Your task to perform on an android device: open app "Clock" (install if not already installed) Image 0: 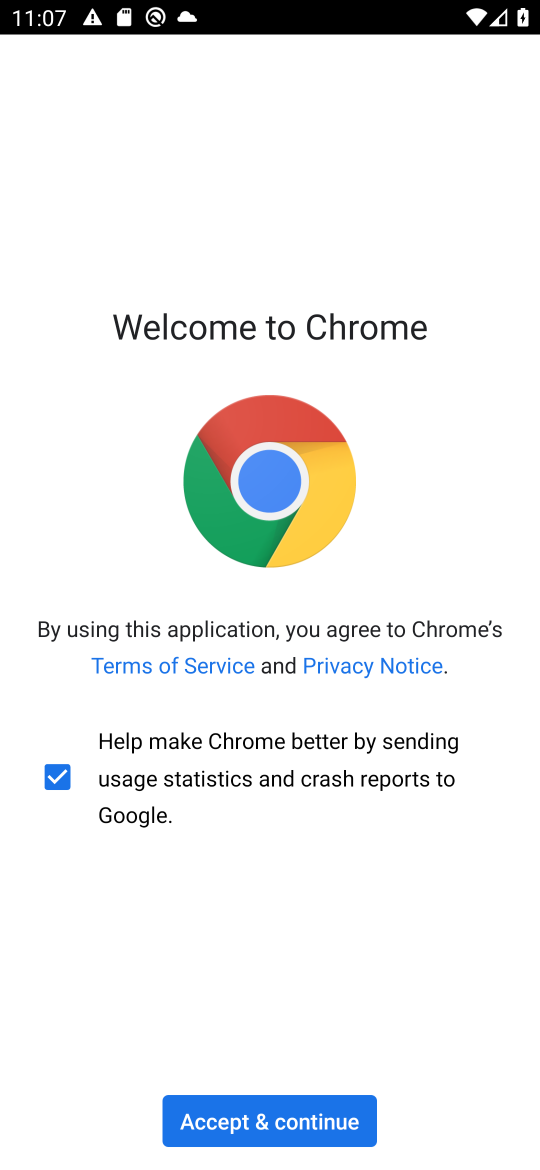
Step 0: press home button
Your task to perform on an android device: open app "Clock" (install if not already installed) Image 1: 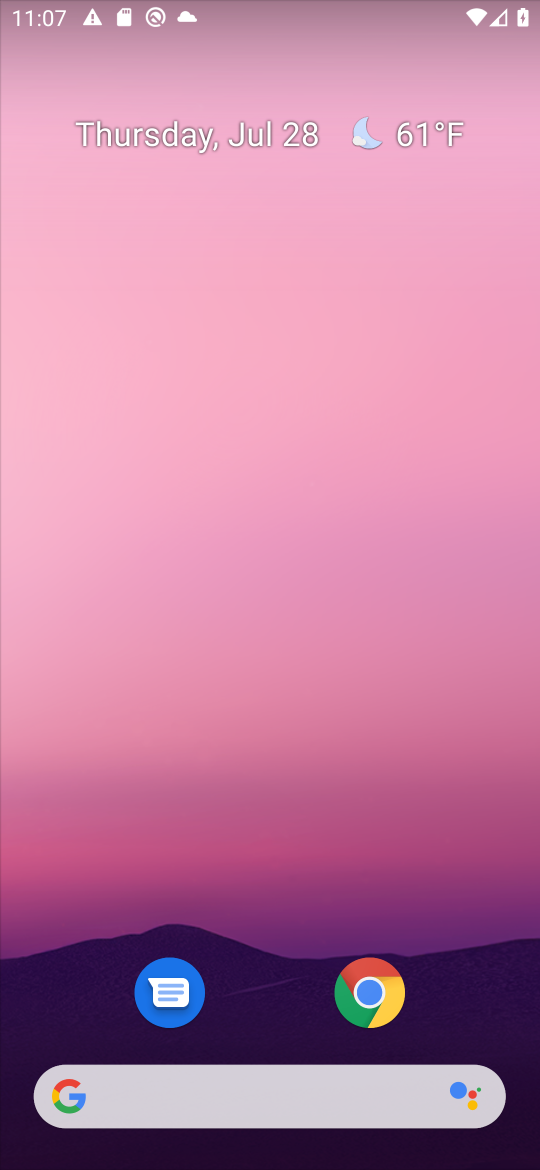
Step 1: drag from (245, 1108) to (362, 239)
Your task to perform on an android device: open app "Clock" (install if not already installed) Image 2: 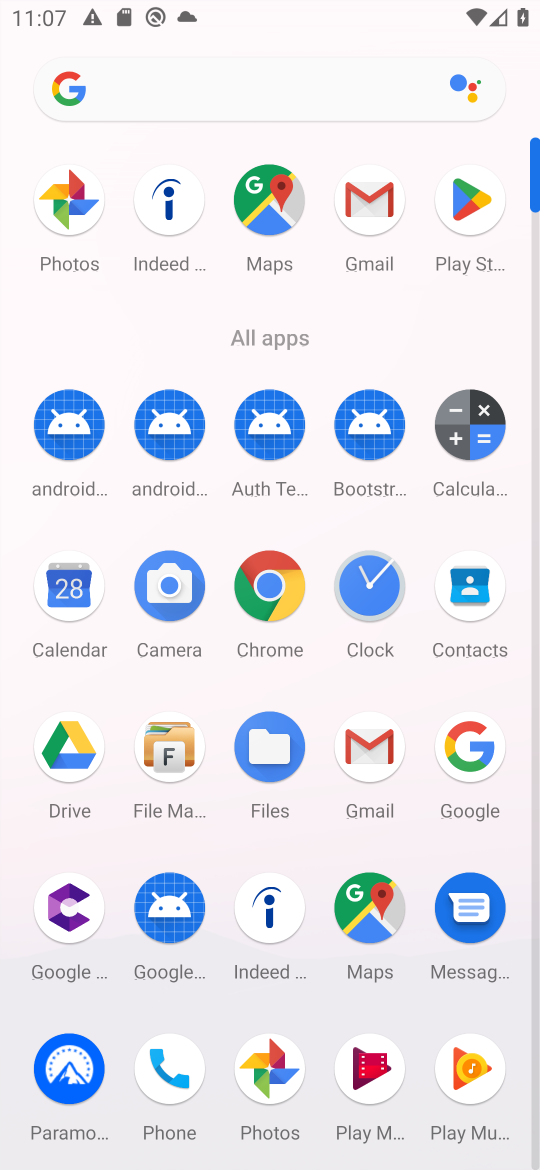
Step 2: click (474, 198)
Your task to perform on an android device: open app "Clock" (install if not already installed) Image 3: 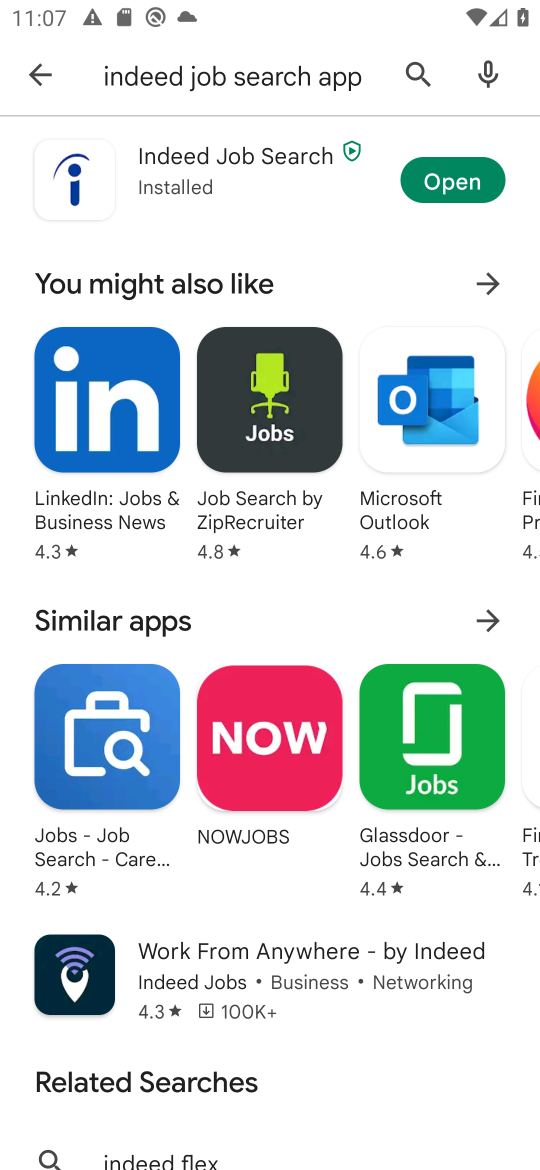
Step 3: click (411, 72)
Your task to perform on an android device: open app "Clock" (install if not already installed) Image 4: 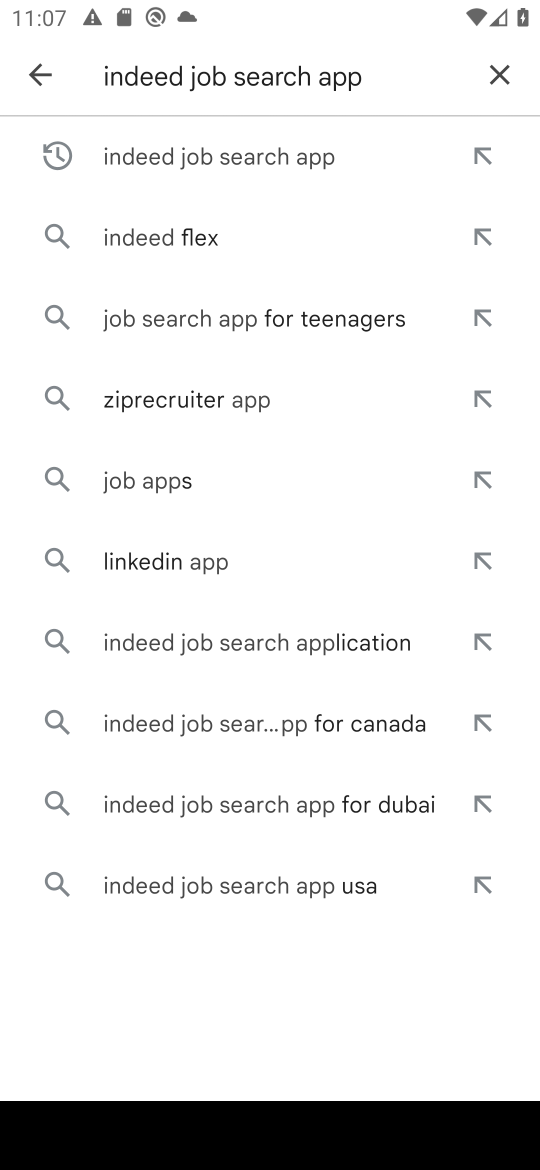
Step 4: click (506, 79)
Your task to perform on an android device: open app "Clock" (install if not already installed) Image 5: 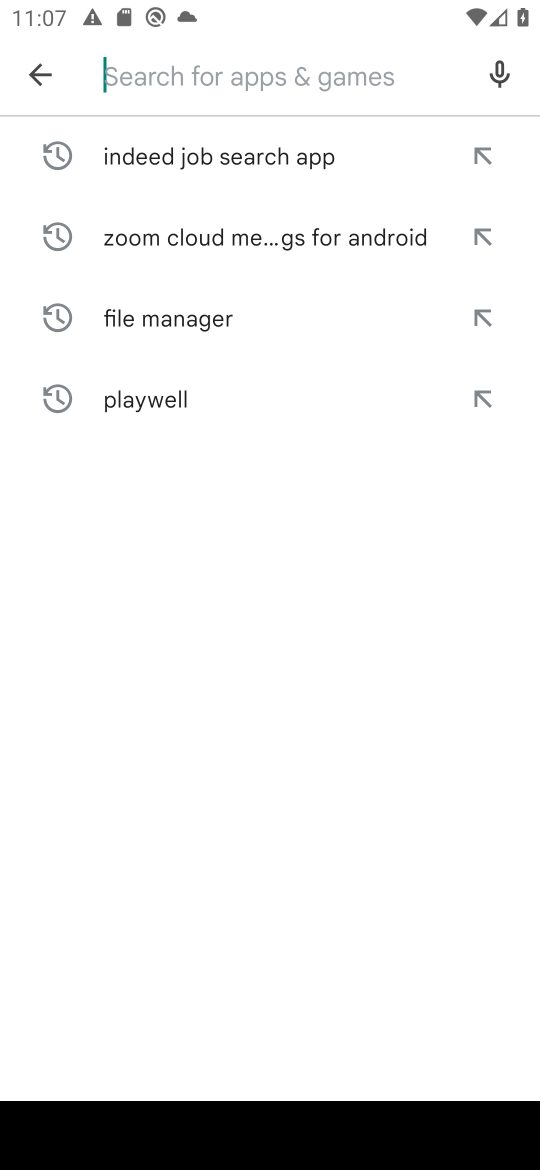
Step 5: type "Clock"
Your task to perform on an android device: open app "Clock" (install if not already installed) Image 6: 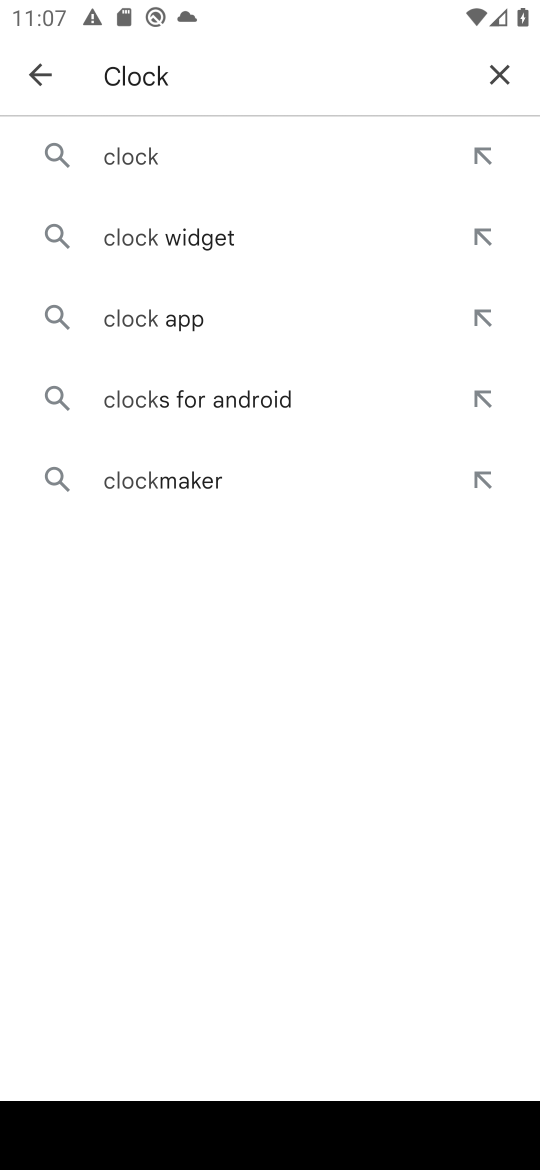
Step 6: click (132, 157)
Your task to perform on an android device: open app "Clock" (install if not already installed) Image 7: 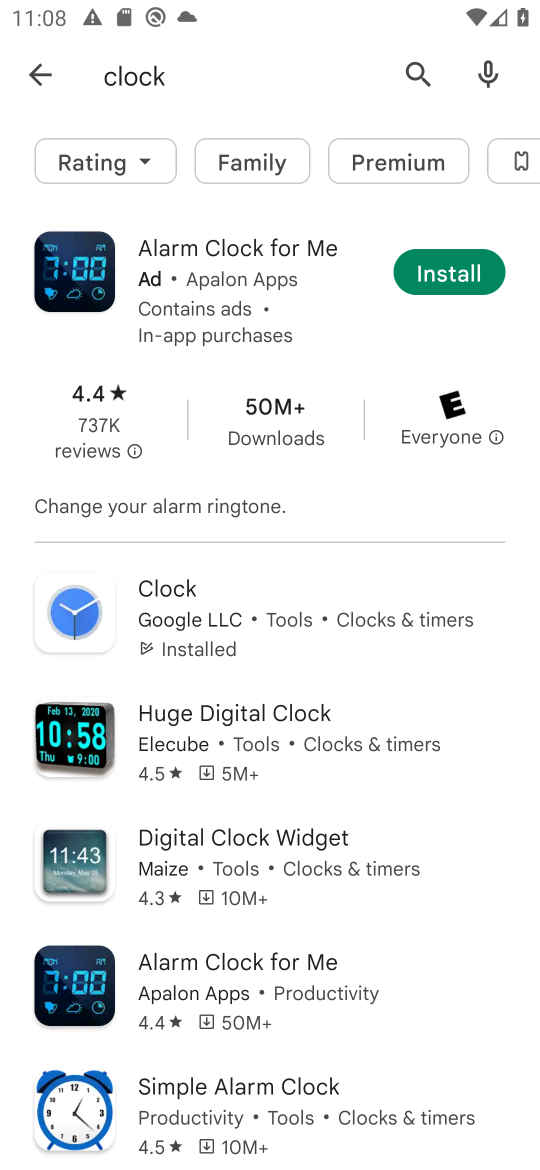
Step 7: click (238, 611)
Your task to perform on an android device: open app "Clock" (install if not already installed) Image 8: 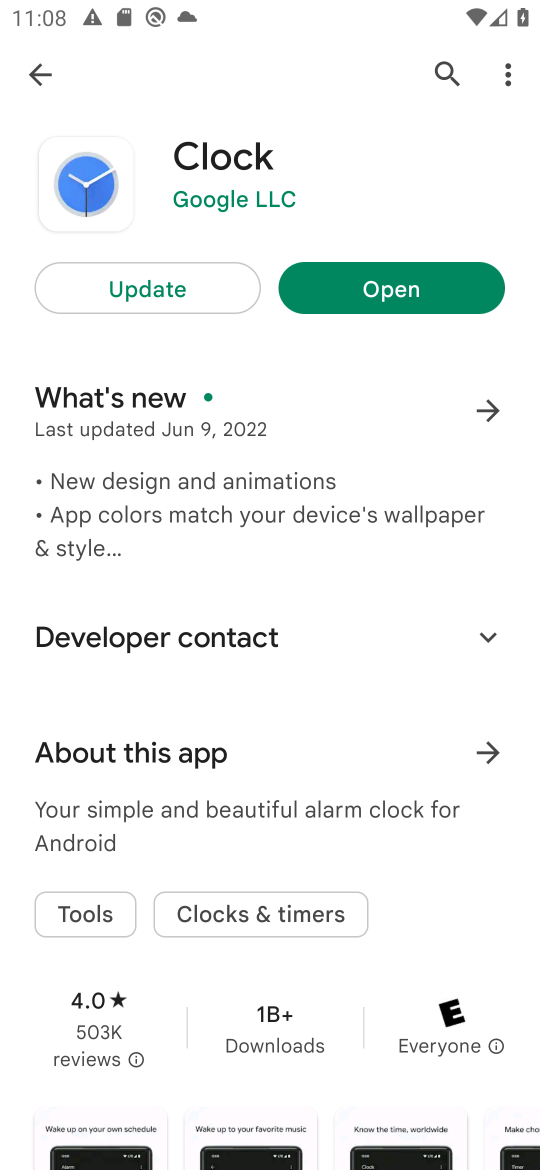
Step 8: click (377, 296)
Your task to perform on an android device: open app "Clock" (install if not already installed) Image 9: 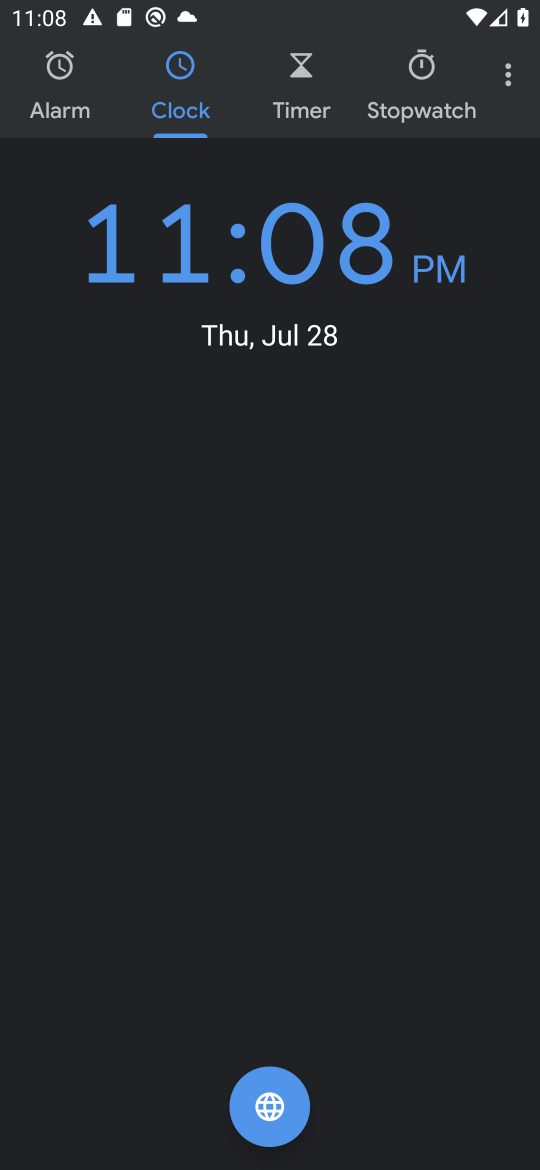
Step 9: task complete